Your task to perform on an android device: Go to eBay Image 0: 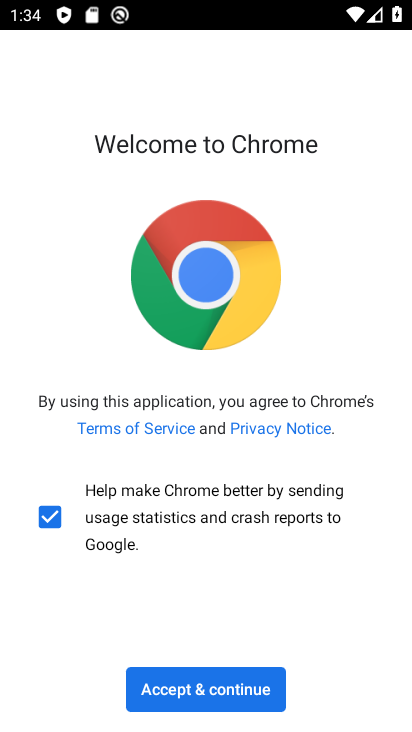
Step 0: press home button
Your task to perform on an android device: Go to eBay Image 1: 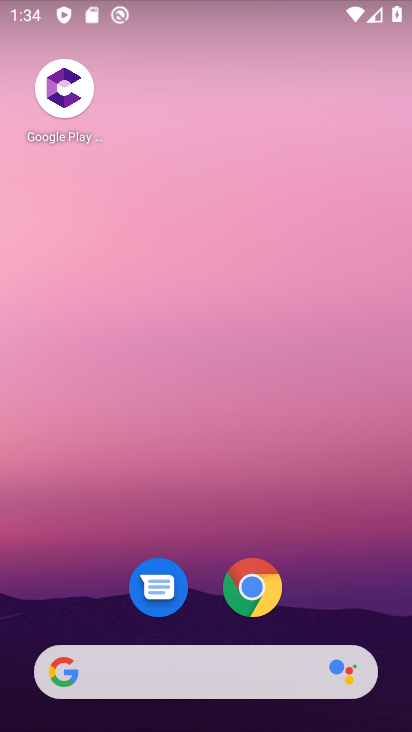
Step 1: click (251, 597)
Your task to perform on an android device: Go to eBay Image 2: 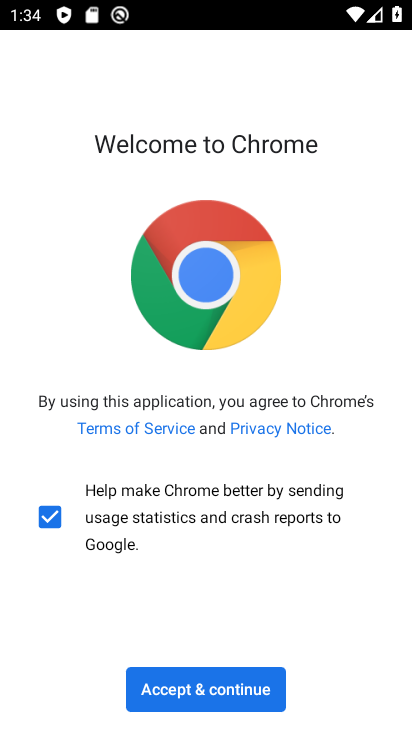
Step 2: click (184, 680)
Your task to perform on an android device: Go to eBay Image 3: 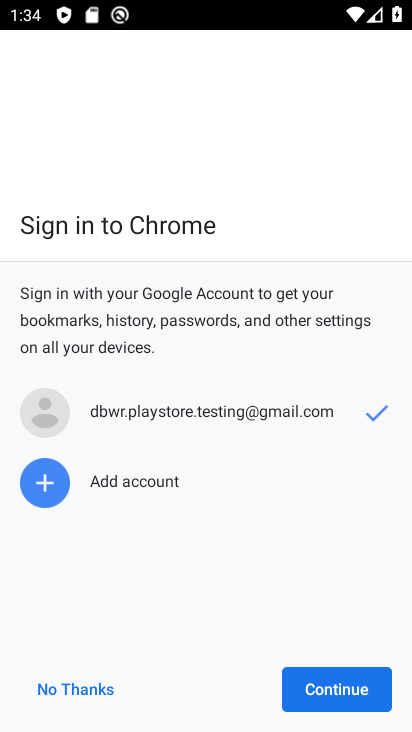
Step 3: click (328, 673)
Your task to perform on an android device: Go to eBay Image 4: 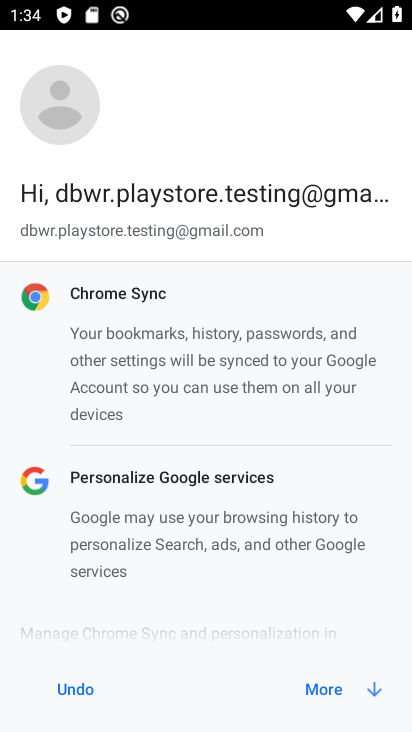
Step 4: click (321, 682)
Your task to perform on an android device: Go to eBay Image 5: 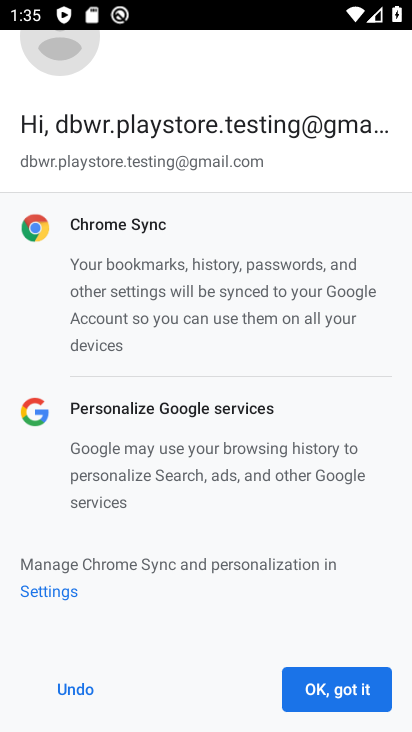
Step 5: click (293, 682)
Your task to perform on an android device: Go to eBay Image 6: 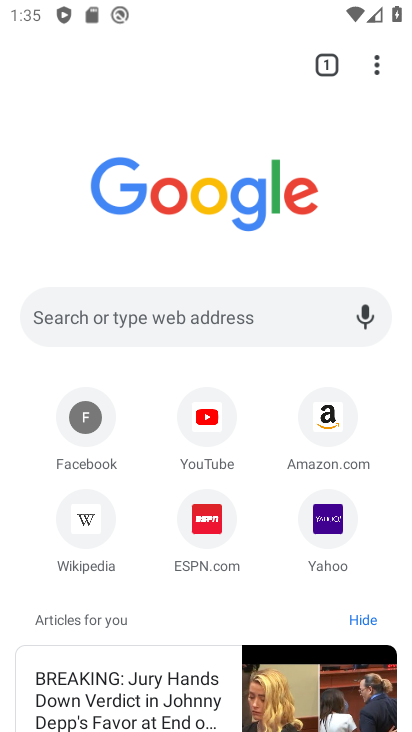
Step 6: click (135, 316)
Your task to perform on an android device: Go to eBay Image 7: 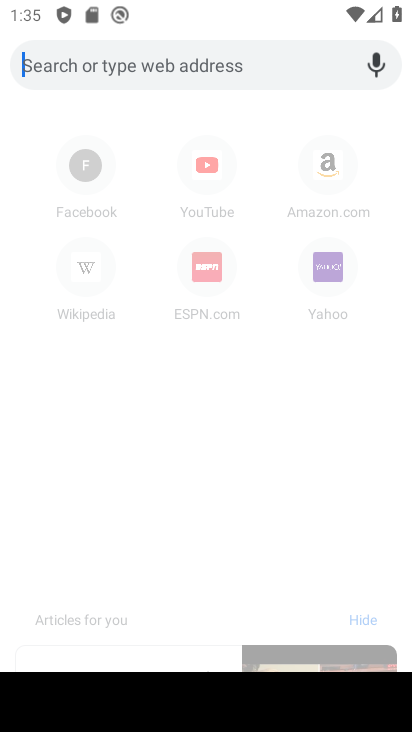
Step 7: type "ebay"
Your task to perform on an android device: Go to eBay Image 8: 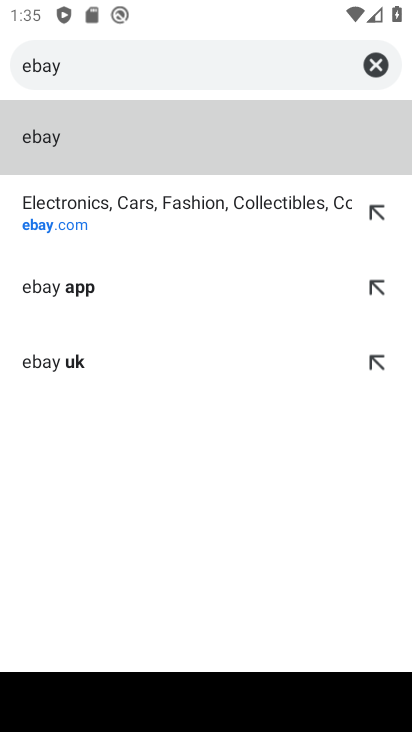
Step 8: click (46, 137)
Your task to perform on an android device: Go to eBay Image 9: 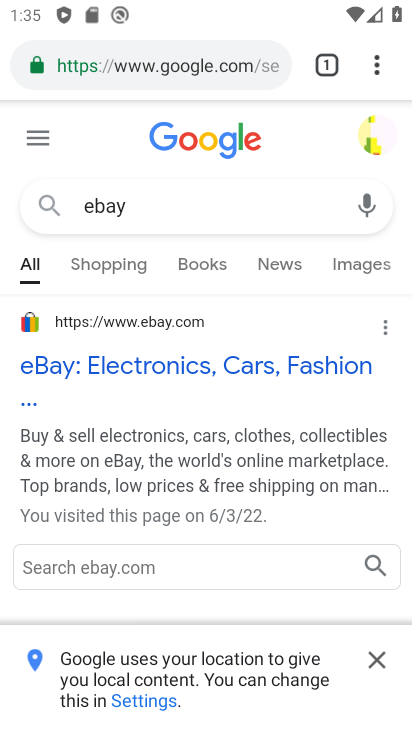
Step 9: click (96, 367)
Your task to perform on an android device: Go to eBay Image 10: 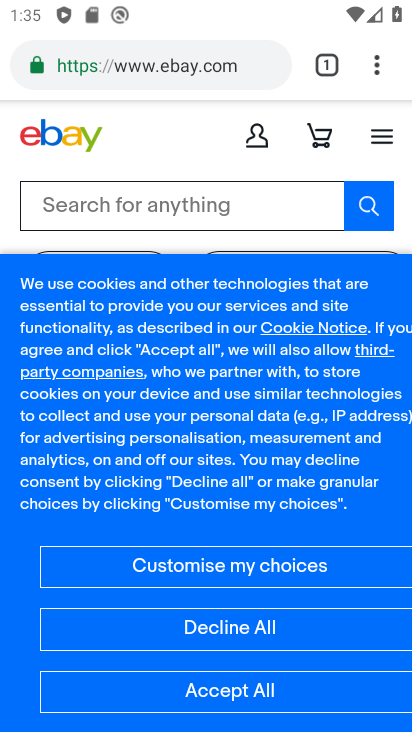
Step 10: task complete